Your task to perform on an android device: Open Google Maps and go to "Timeline" Image 0: 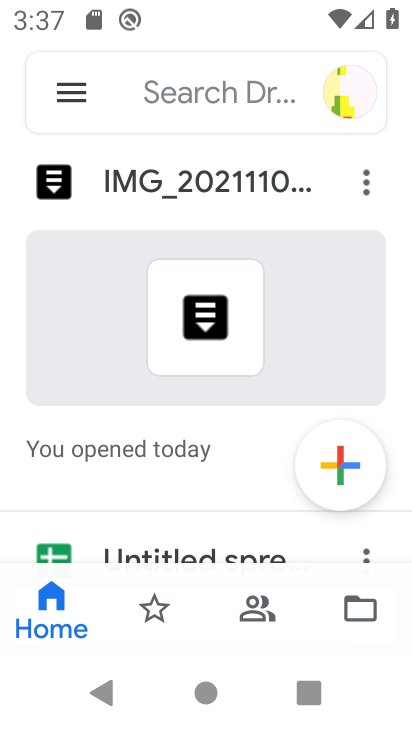
Step 0: press home button
Your task to perform on an android device: Open Google Maps and go to "Timeline" Image 1: 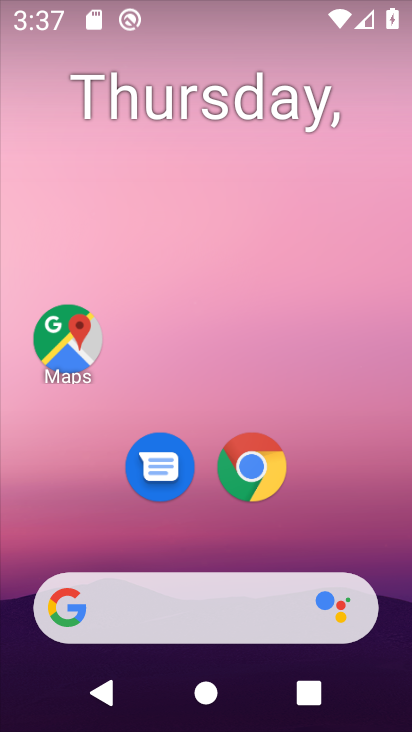
Step 1: drag from (208, 537) to (290, 24)
Your task to perform on an android device: Open Google Maps and go to "Timeline" Image 2: 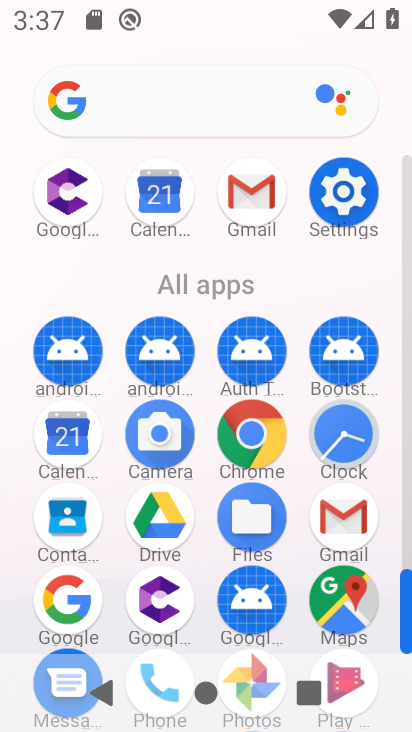
Step 2: click (345, 596)
Your task to perform on an android device: Open Google Maps and go to "Timeline" Image 3: 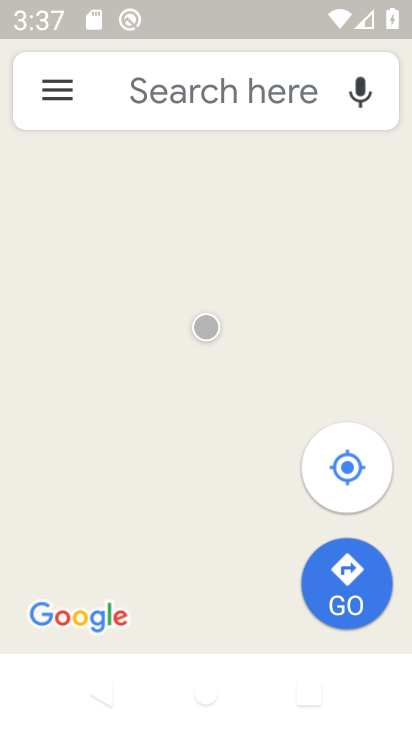
Step 3: click (69, 86)
Your task to perform on an android device: Open Google Maps and go to "Timeline" Image 4: 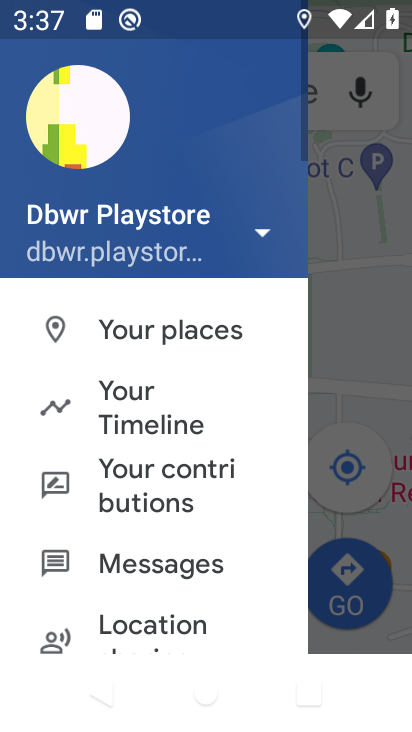
Step 4: click (103, 407)
Your task to perform on an android device: Open Google Maps and go to "Timeline" Image 5: 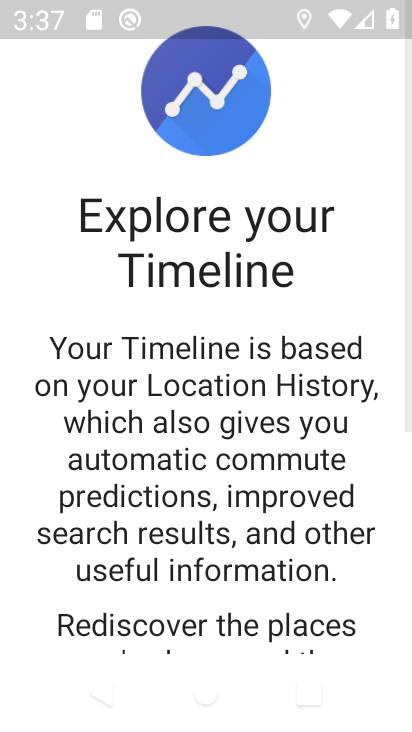
Step 5: drag from (190, 589) to (263, 87)
Your task to perform on an android device: Open Google Maps and go to "Timeline" Image 6: 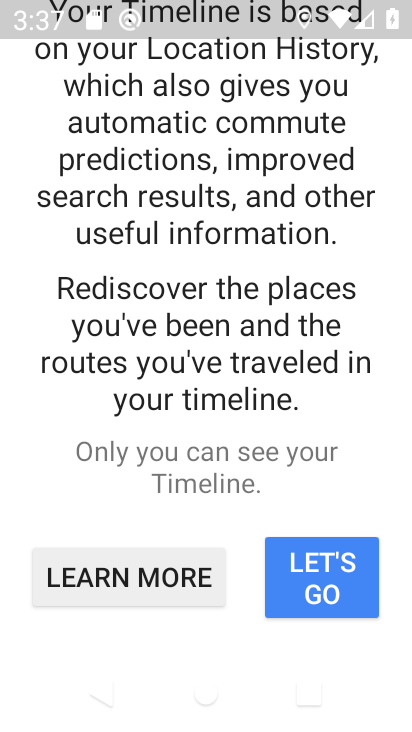
Step 6: click (296, 601)
Your task to perform on an android device: Open Google Maps and go to "Timeline" Image 7: 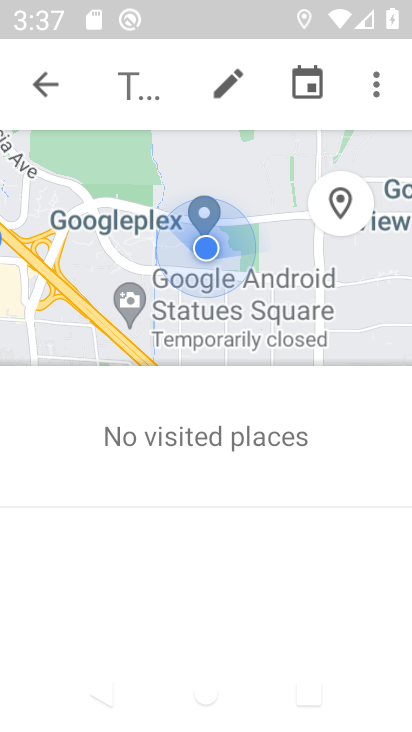
Step 7: task complete